Your task to perform on an android device: Show me productivity apps on the Play Store Image 0: 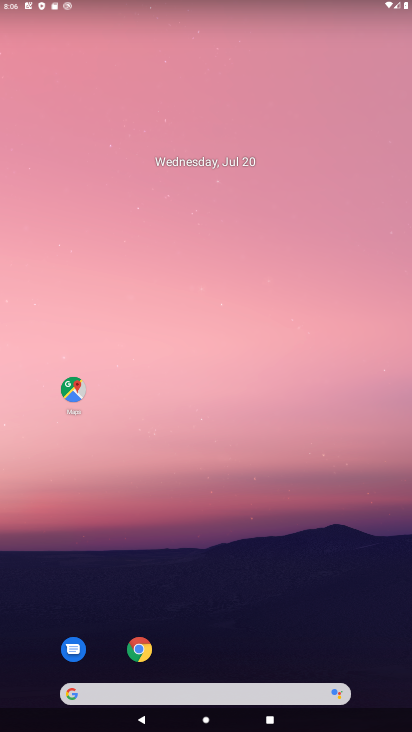
Step 0: drag from (207, 686) to (285, 54)
Your task to perform on an android device: Show me productivity apps on the Play Store Image 1: 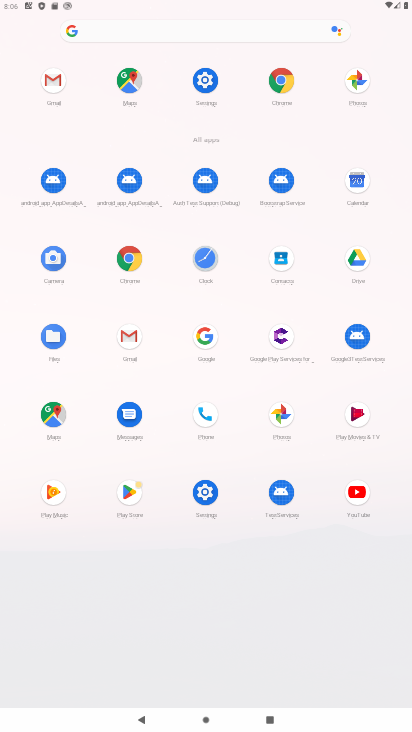
Step 1: click (132, 495)
Your task to perform on an android device: Show me productivity apps on the Play Store Image 2: 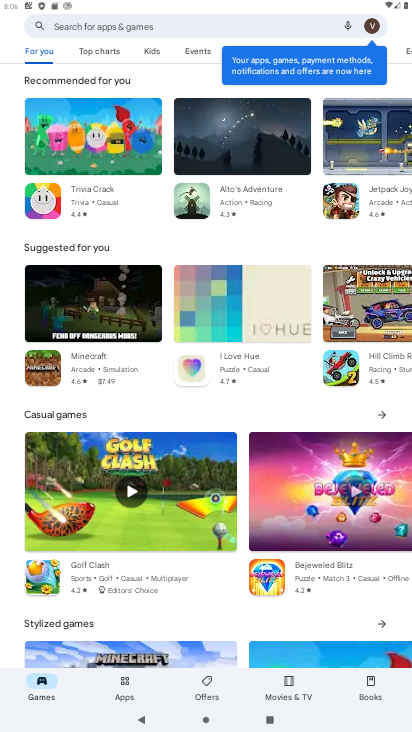
Step 2: click (122, 686)
Your task to perform on an android device: Show me productivity apps on the Play Store Image 3: 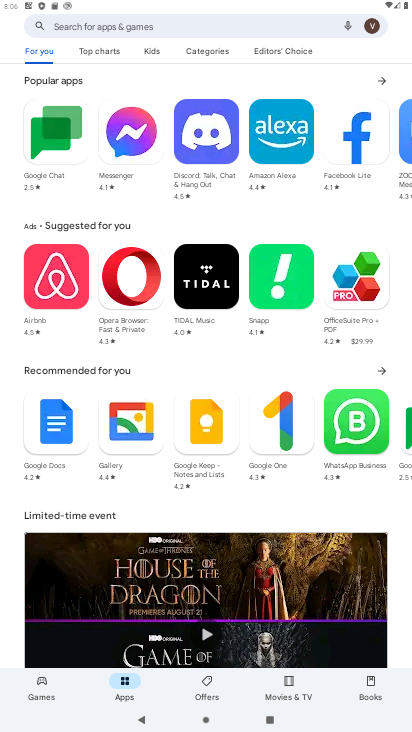
Step 3: click (204, 51)
Your task to perform on an android device: Show me productivity apps on the Play Store Image 4: 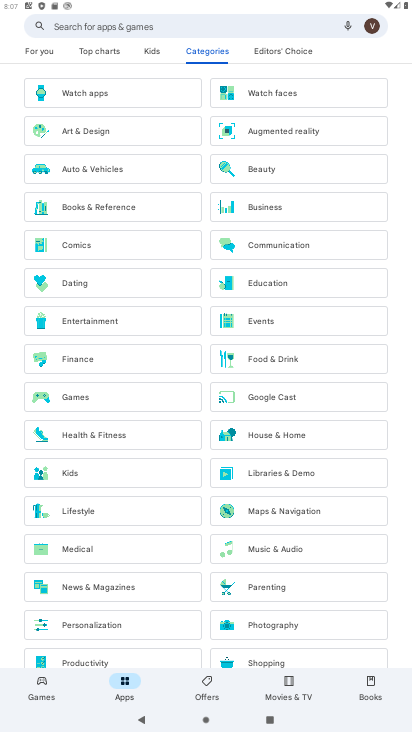
Step 4: drag from (135, 621) to (149, 549)
Your task to perform on an android device: Show me productivity apps on the Play Store Image 5: 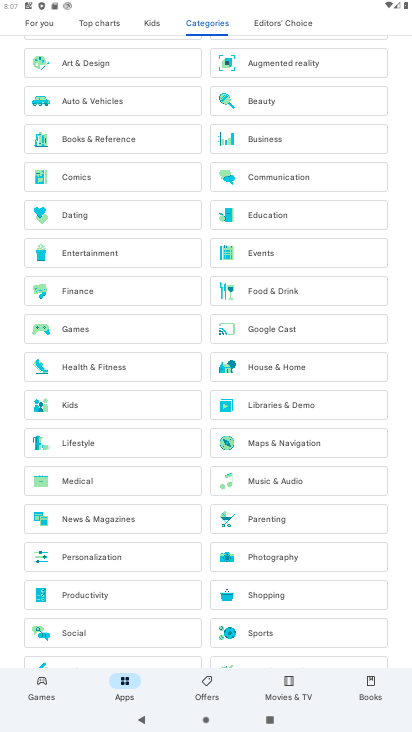
Step 5: click (102, 596)
Your task to perform on an android device: Show me productivity apps on the Play Store Image 6: 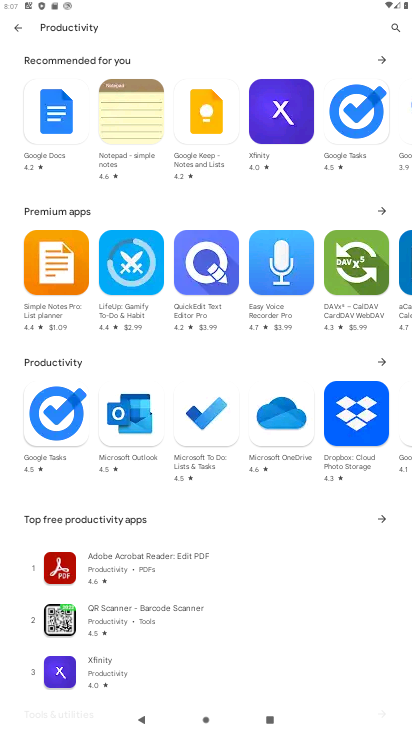
Step 6: task complete